Your task to perform on an android device: View the shopping cart on ebay.com. Search for "bose soundlink mini" on ebay.com, select the first entry, and add it to the cart. Image 0: 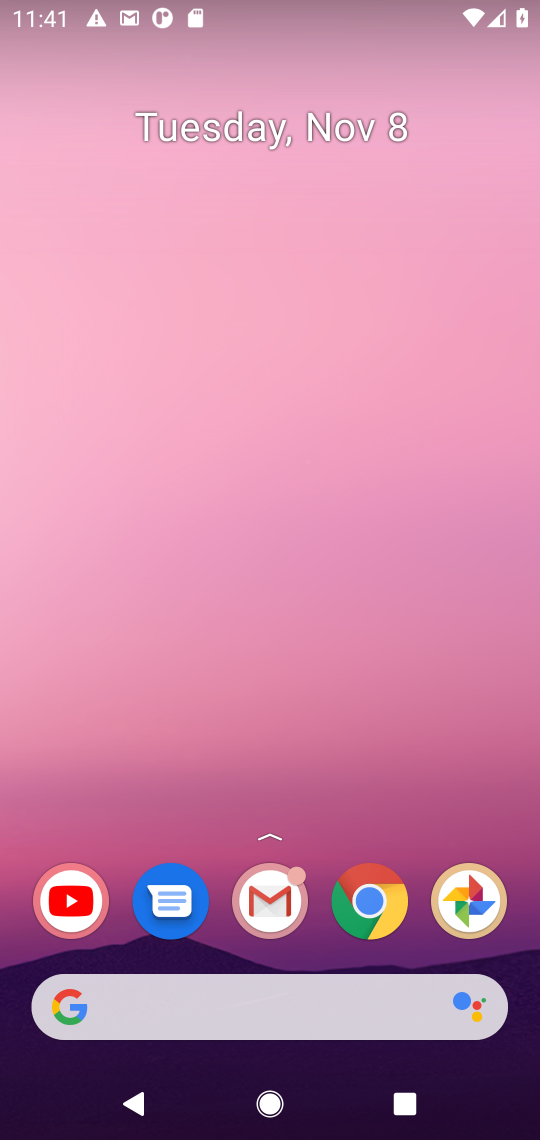
Step 0: click (373, 915)
Your task to perform on an android device: View the shopping cart on ebay.com. Search for "bose soundlink mini" on ebay.com, select the first entry, and add it to the cart. Image 1: 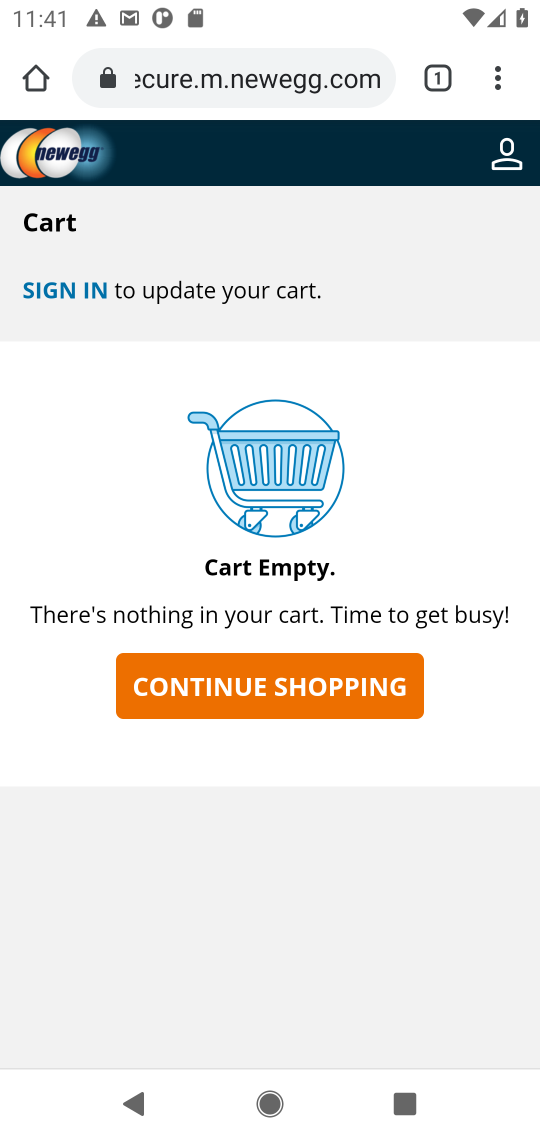
Step 1: click (319, 93)
Your task to perform on an android device: View the shopping cart on ebay.com. Search for "bose soundlink mini" on ebay.com, select the first entry, and add it to the cart. Image 2: 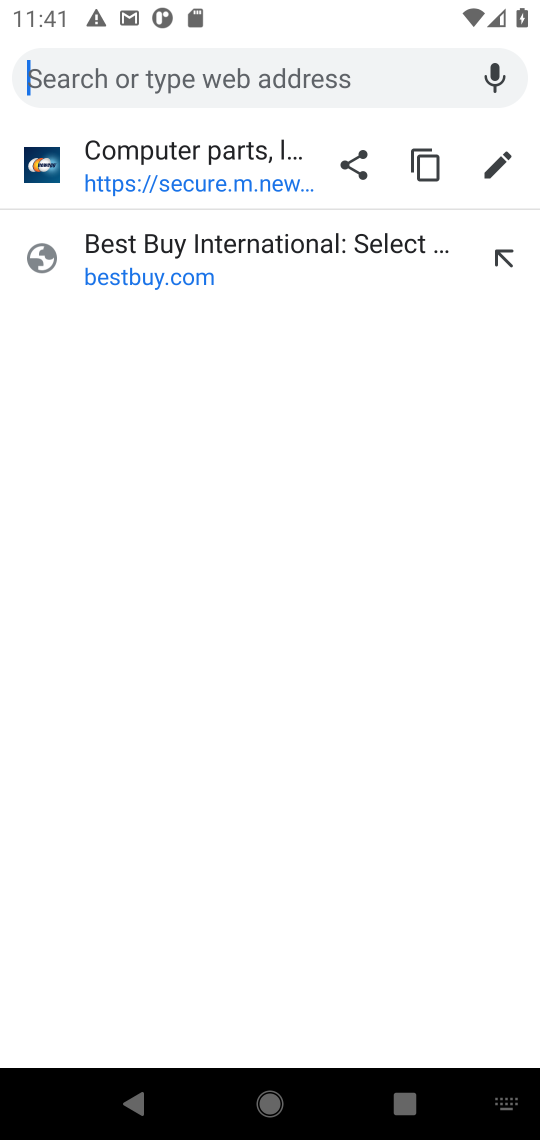
Step 2: type "ebay.com"
Your task to perform on an android device: View the shopping cart on ebay.com. Search for "bose soundlink mini" on ebay.com, select the first entry, and add it to the cart. Image 3: 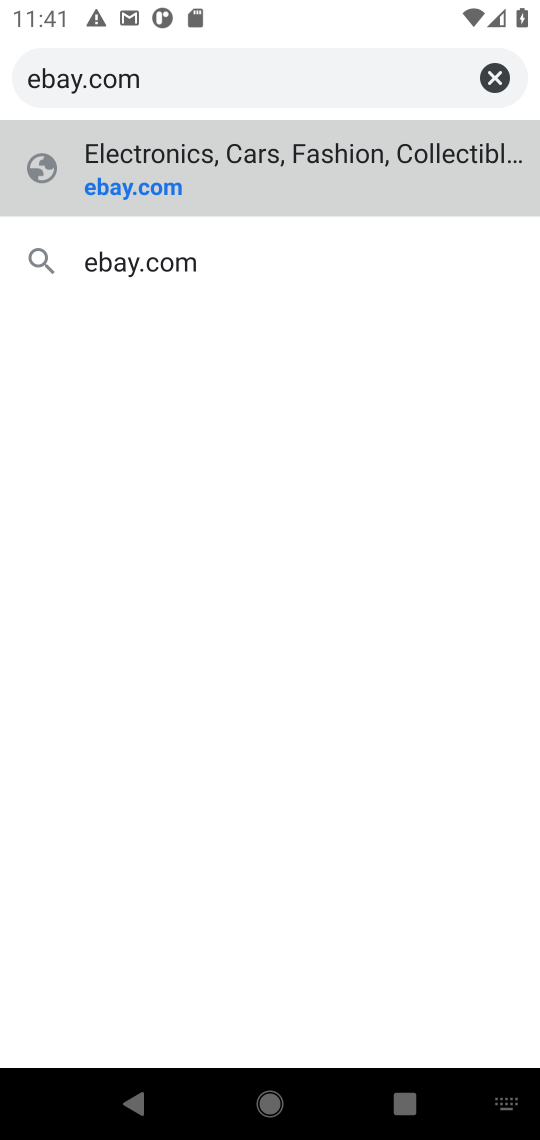
Step 3: press enter
Your task to perform on an android device: View the shopping cart on ebay.com. Search for "bose soundlink mini" on ebay.com, select the first entry, and add it to the cart. Image 4: 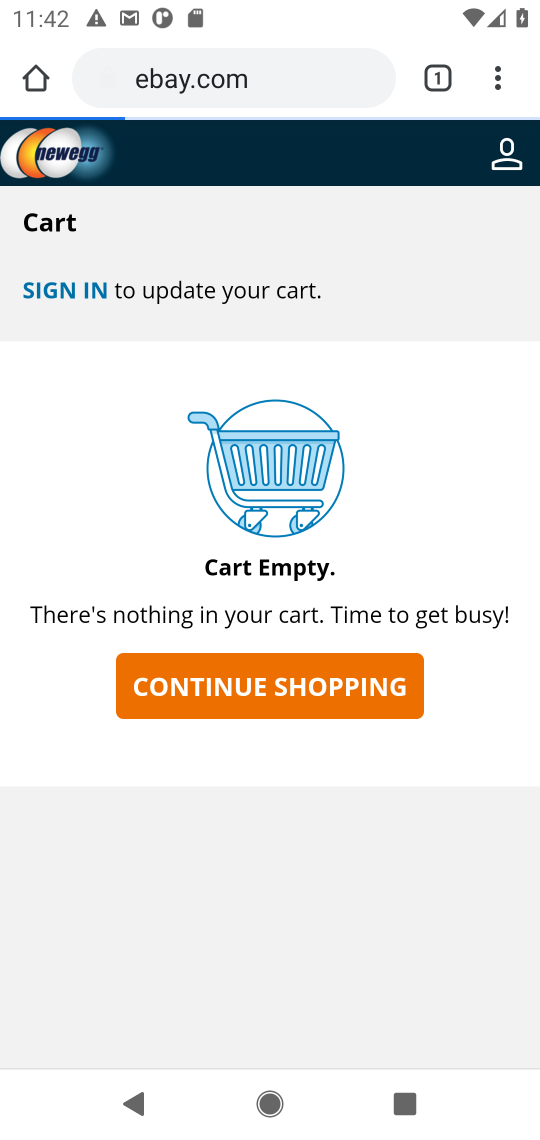
Step 4: click (144, 257)
Your task to perform on an android device: View the shopping cart on ebay.com. Search for "bose soundlink mini" on ebay.com, select the first entry, and add it to the cart. Image 5: 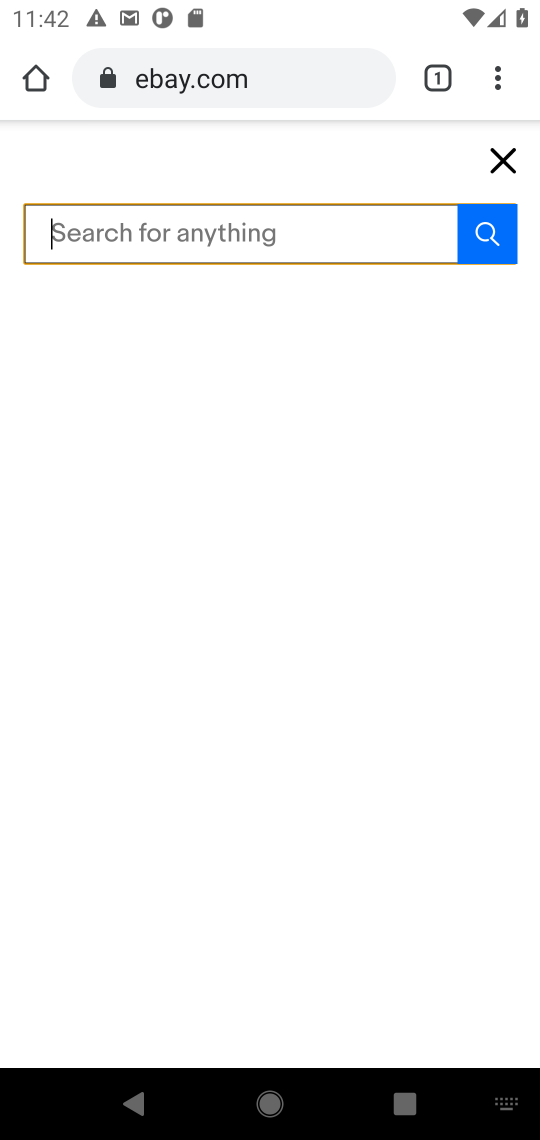
Step 5: type "bose soundlink mini"
Your task to perform on an android device: View the shopping cart on ebay.com. Search for "bose soundlink mini" on ebay.com, select the first entry, and add it to the cart. Image 6: 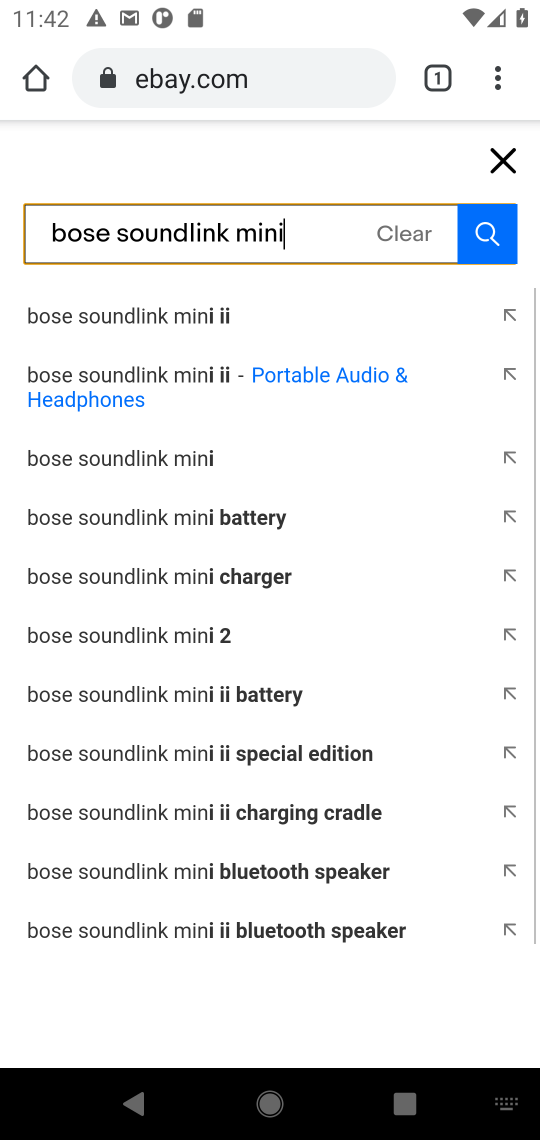
Step 6: press enter
Your task to perform on an android device: View the shopping cart on ebay.com. Search for "bose soundlink mini" on ebay.com, select the first entry, and add it to the cart. Image 7: 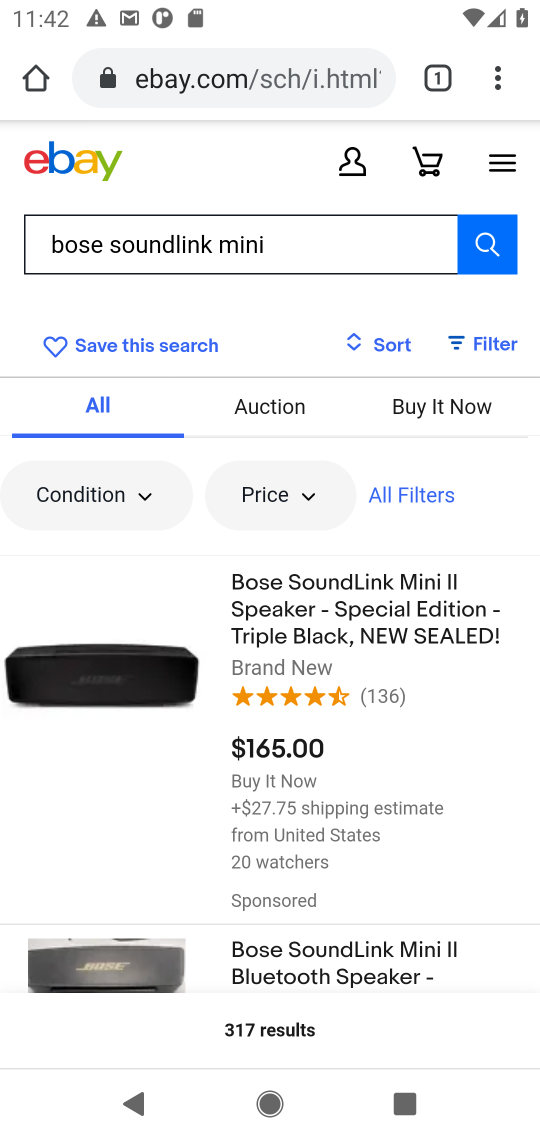
Step 7: click (123, 678)
Your task to perform on an android device: View the shopping cart on ebay.com. Search for "bose soundlink mini" on ebay.com, select the first entry, and add it to the cart. Image 8: 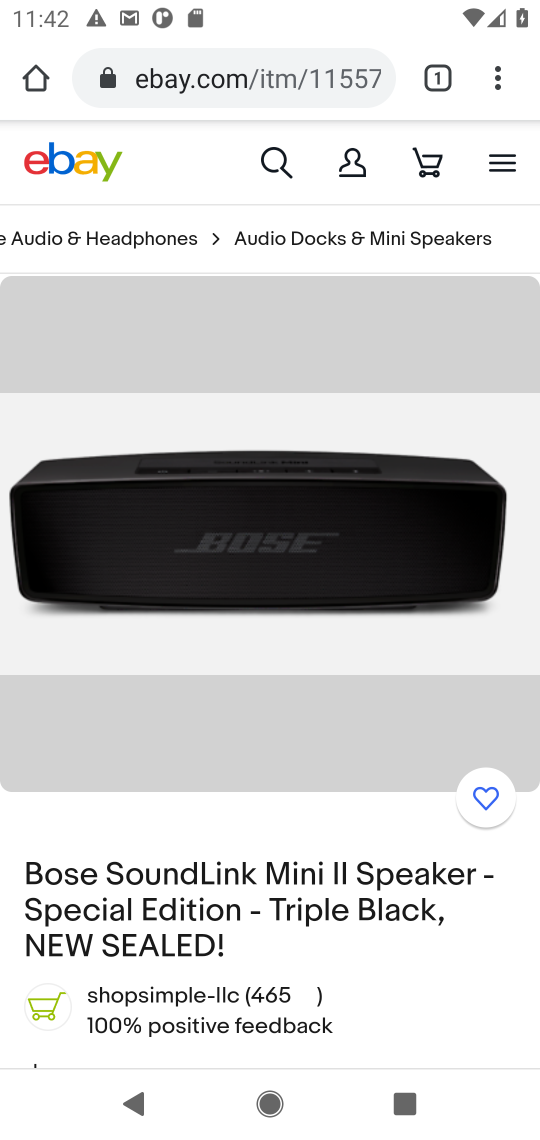
Step 8: drag from (369, 520) to (404, 439)
Your task to perform on an android device: View the shopping cart on ebay.com. Search for "bose soundlink mini" on ebay.com, select the first entry, and add it to the cart. Image 9: 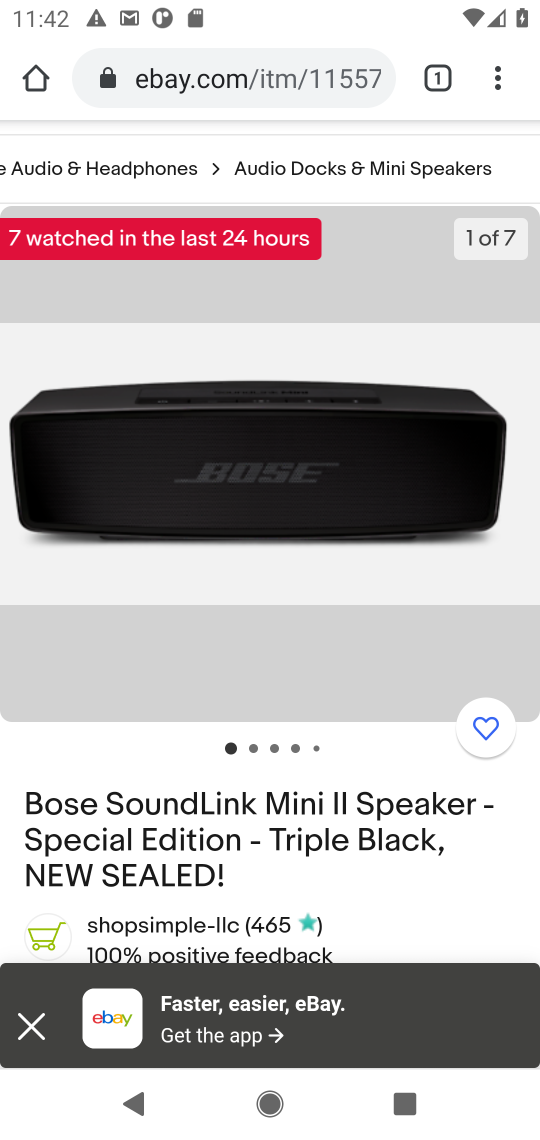
Step 9: drag from (344, 755) to (262, 196)
Your task to perform on an android device: View the shopping cart on ebay.com. Search for "bose soundlink mini" on ebay.com, select the first entry, and add it to the cart. Image 10: 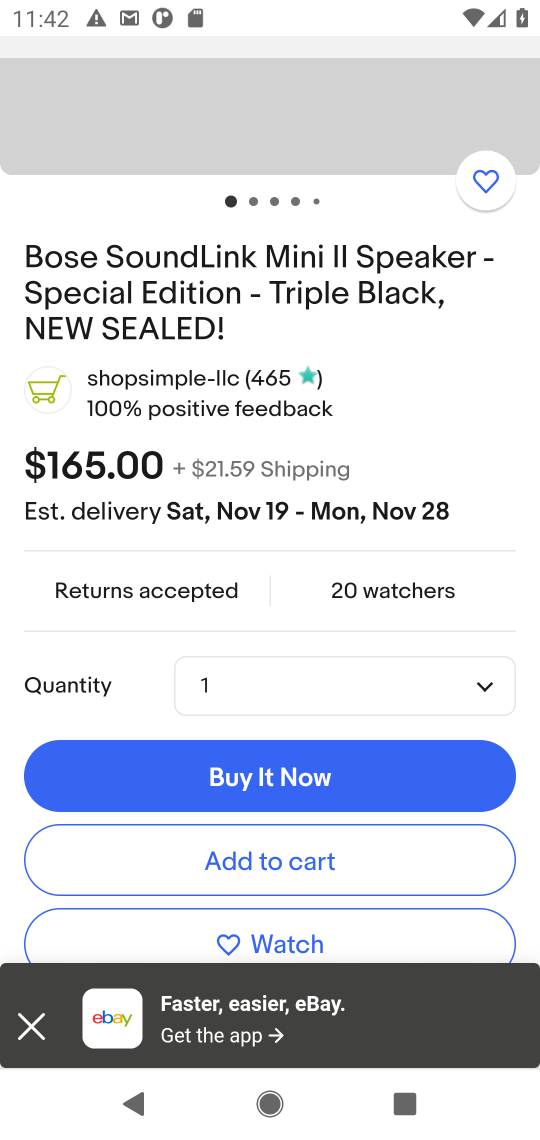
Step 10: click (298, 854)
Your task to perform on an android device: View the shopping cart on ebay.com. Search for "bose soundlink mini" on ebay.com, select the first entry, and add it to the cart. Image 11: 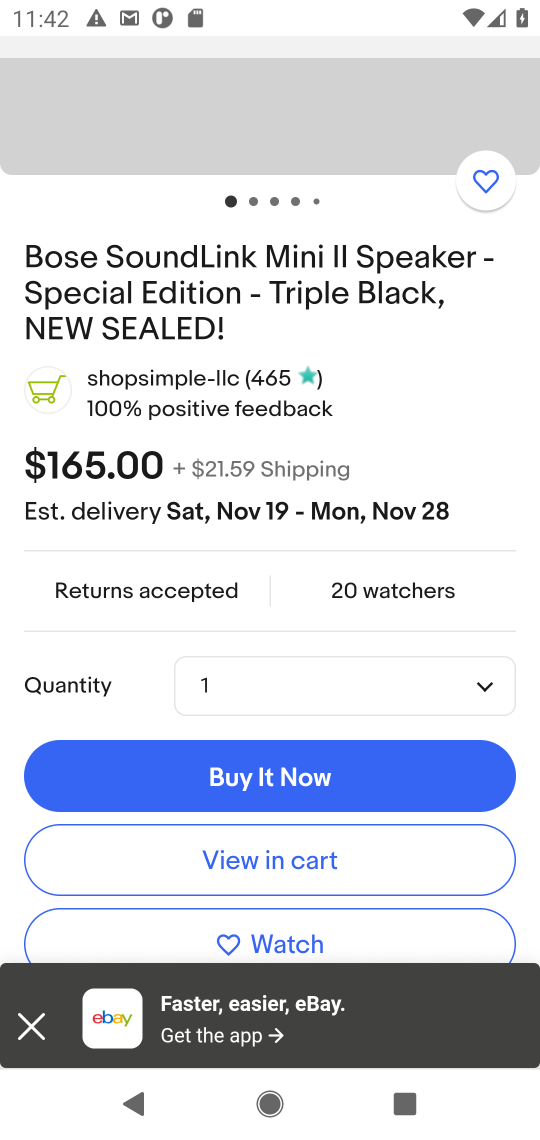
Step 11: click (298, 854)
Your task to perform on an android device: View the shopping cart on ebay.com. Search for "bose soundlink mini" on ebay.com, select the first entry, and add it to the cart. Image 12: 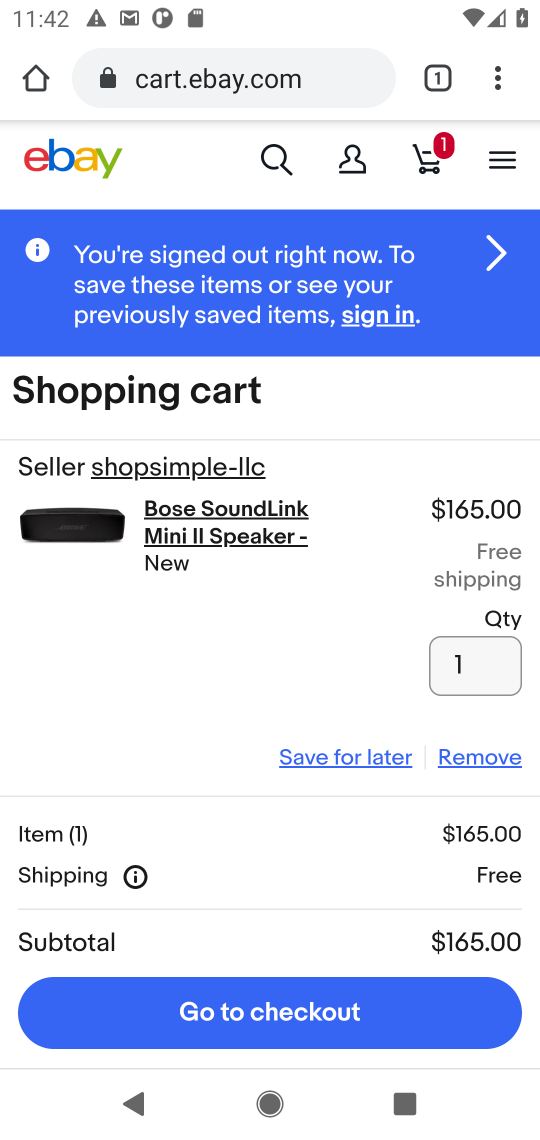
Step 12: task complete